Your task to perform on an android device: add a contact Image 0: 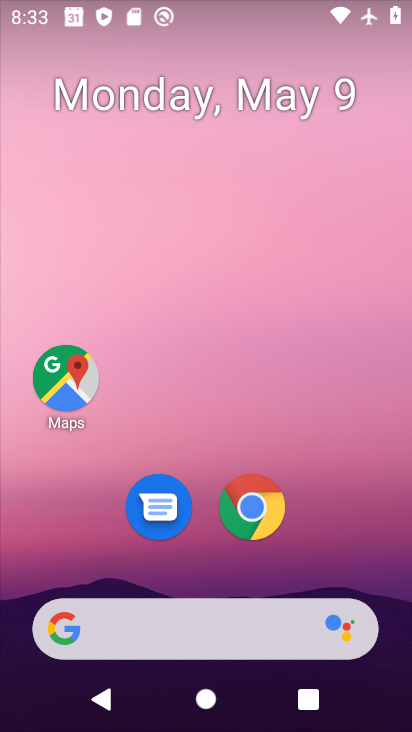
Step 0: drag from (213, 578) to (398, 654)
Your task to perform on an android device: add a contact Image 1: 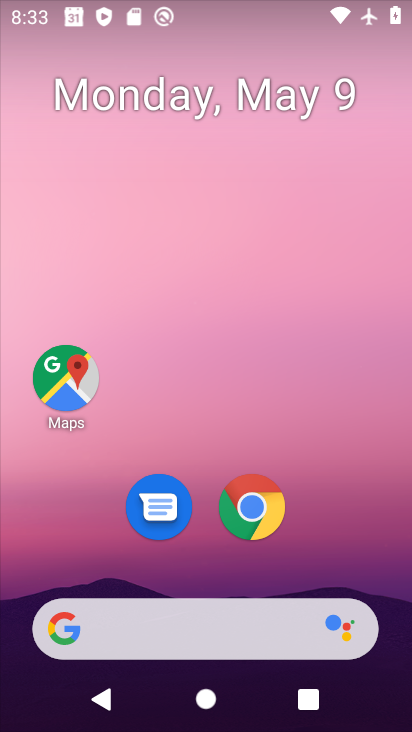
Step 1: drag from (202, 562) to (191, 1)
Your task to perform on an android device: add a contact Image 2: 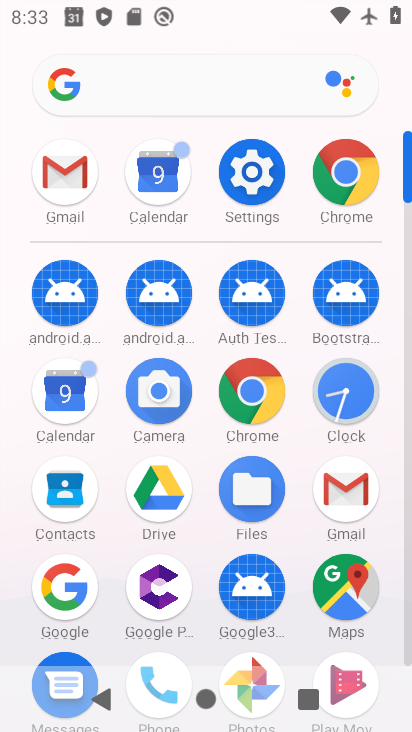
Step 2: drag from (106, 559) to (118, 88)
Your task to perform on an android device: add a contact Image 3: 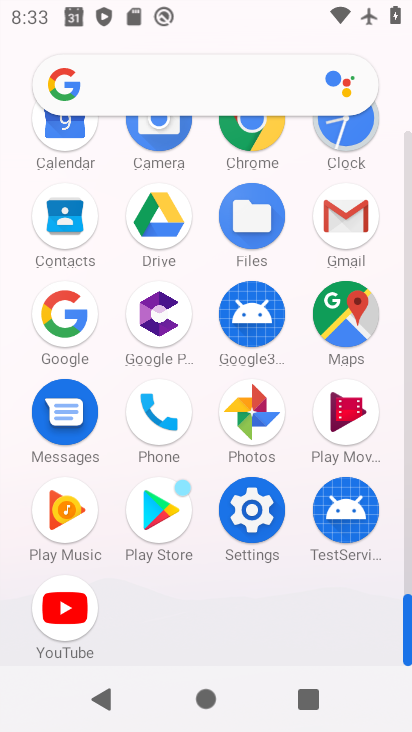
Step 3: click (152, 420)
Your task to perform on an android device: add a contact Image 4: 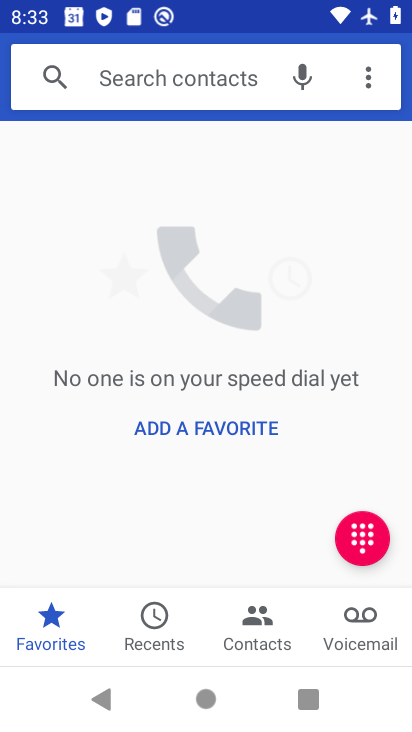
Step 4: click (280, 627)
Your task to perform on an android device: add a contact Image 5: 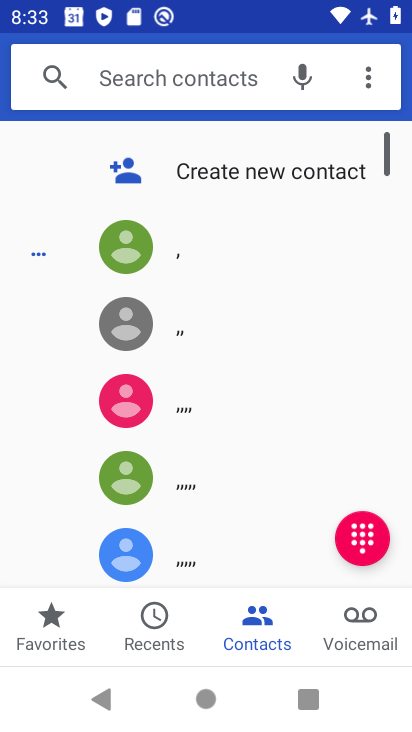
Step 5: click (248, 160)
Your task to perform on an android device: add a contact Image 6: 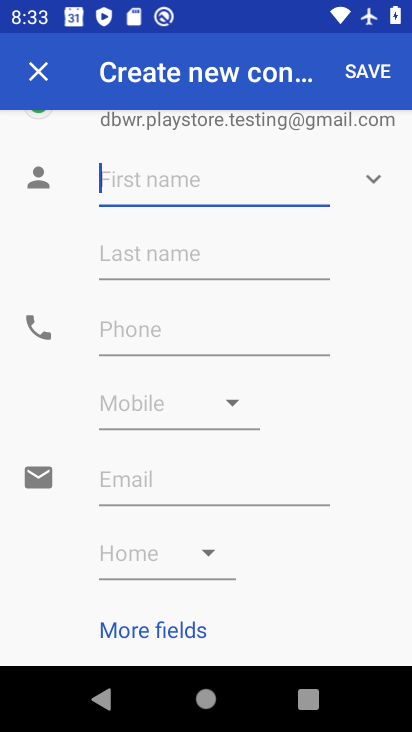
Step 6: type "gg"
Your task to perform on an android device: add a contact Image 7: 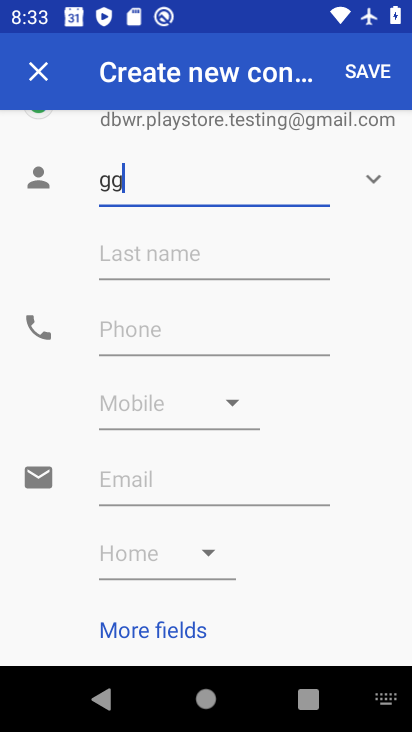
Step 7: click (167, 336)
Your task to perform on an android device: add a contact Image 8: 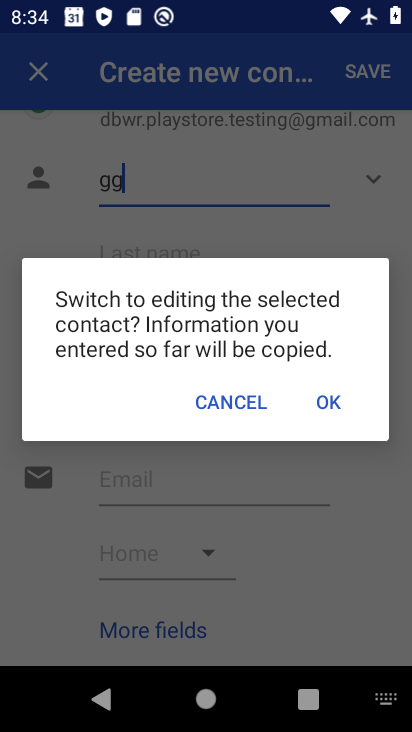
Step 8: click (351, 394)
Your task to perform on an android device: add a contact Image 9: 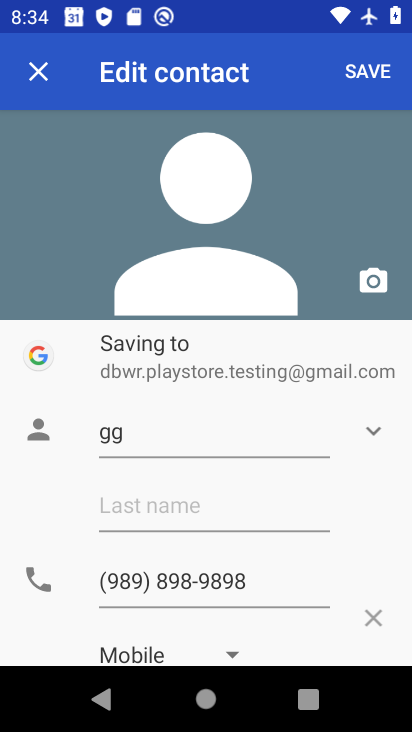
Step 9: click (369, 75)
Your task to perform on an android device: add a contact Image 10: 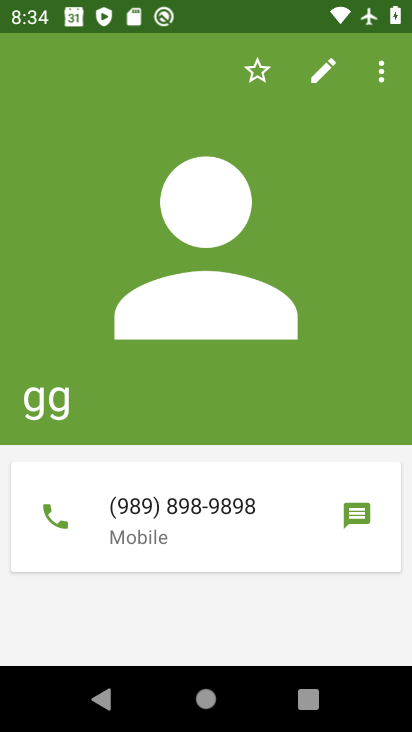
Step 10: task complete